Your task to perform on an android device: Go to wifi settings Image 0: 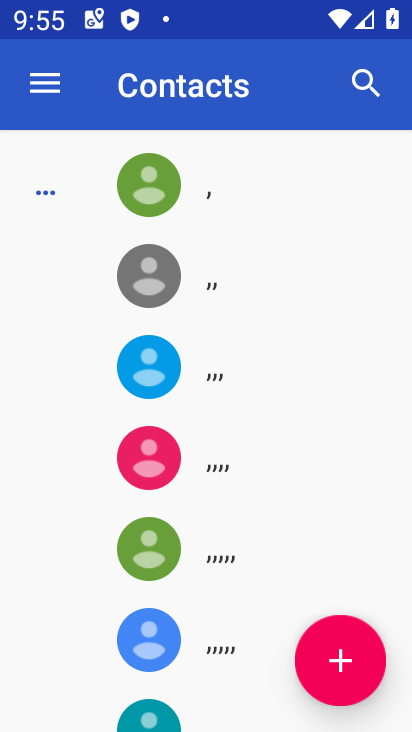
Step 0: press home button
Your task to perform on an android device: Go to wifi settings Image 1: 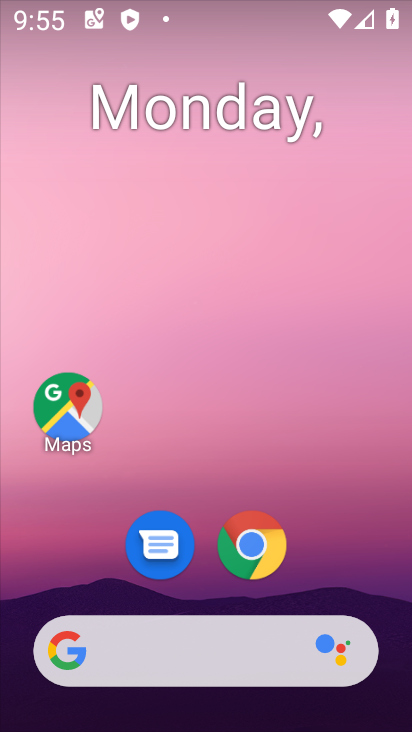
Step 1: drag from (197, 9) to (181, 401)
Your task to perform on an android device: Go to wifi settings Image 2: 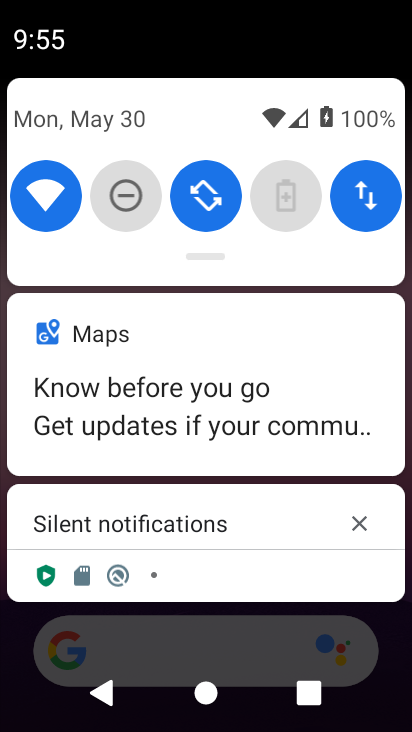
Step 2: click (58, 201)
Your task to perform on an android device: Go to wifi settings Image 3: 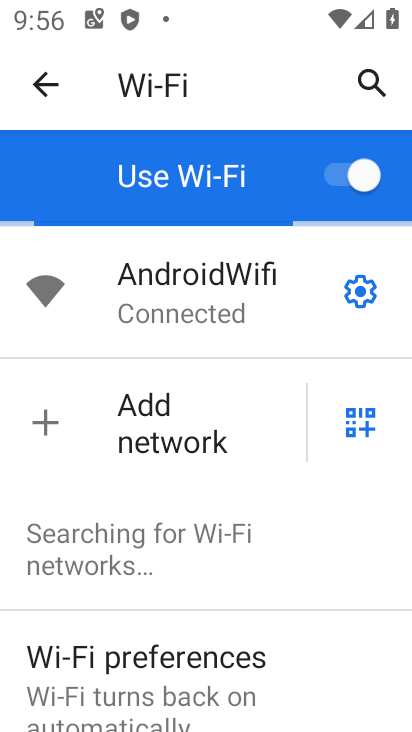
Step 3: click (353, 289)
Your task to perform on an android device: Go to wifi settings Image 4: 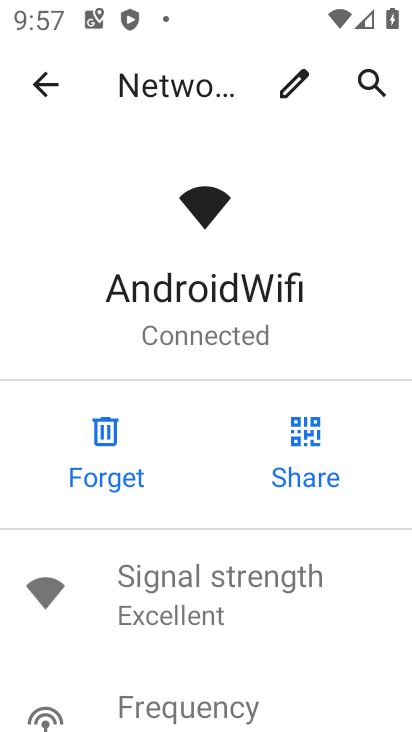
Step 4: task complete